Your task to perform on an android device: turn pop-ups on in chrome Image 0: 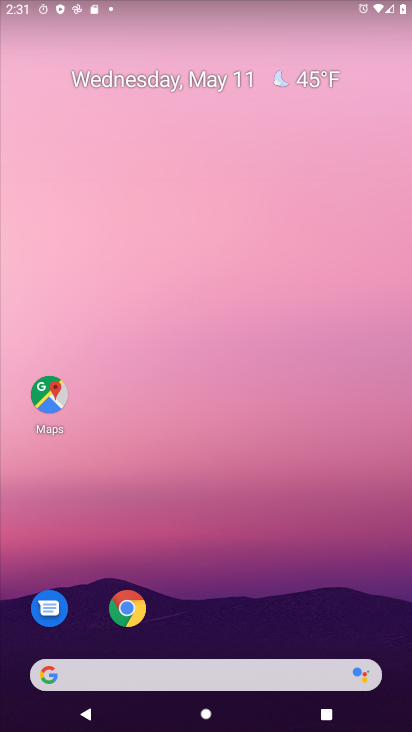
Step 0: click (129, 605)
Your task to perform on an android device: turn pop-ups on in chrome Image 1: 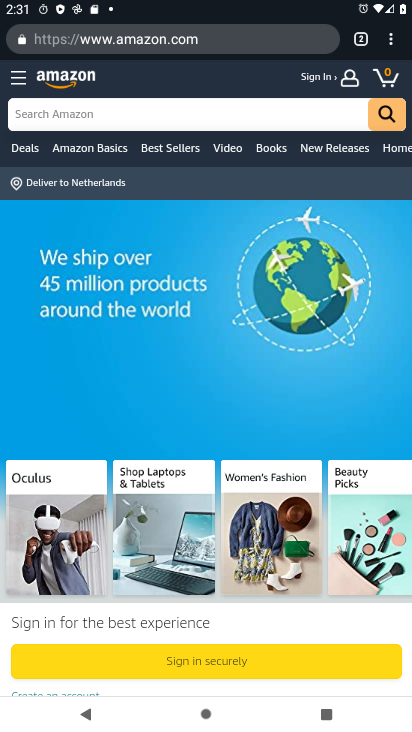
Step 1: click (388, 37)
Your task to perform on an android device: turn pop-ups on in chrome Image 2: 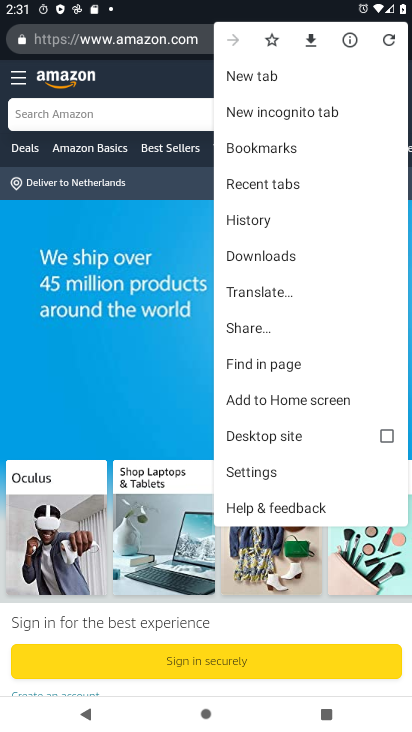
Step 2: click (279, 475)
Your task to perform on an android device: turn pop-ups on in chrome Image 3: 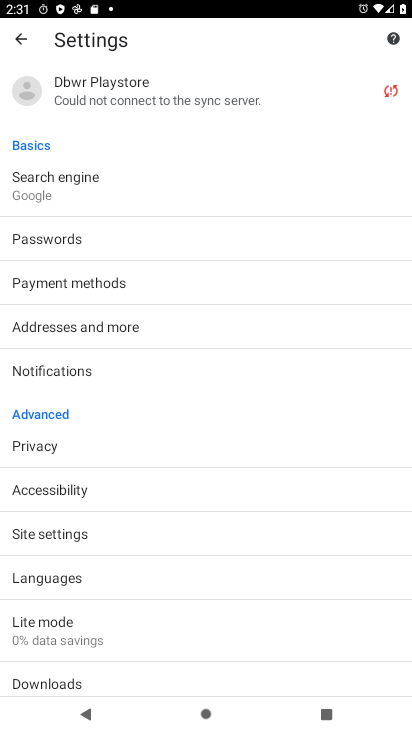
Step 3: click (61, 535)
Your task to perform on an android device: turn pop-ups on in chrome Image 4: 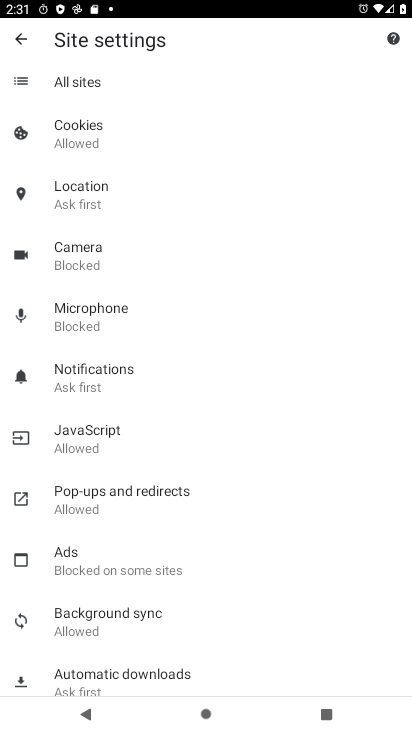
Step 4: drag from (180, 577) to (177, 303)
Your task to perform on an android device: turn pop-ups on in chrome Image 5: 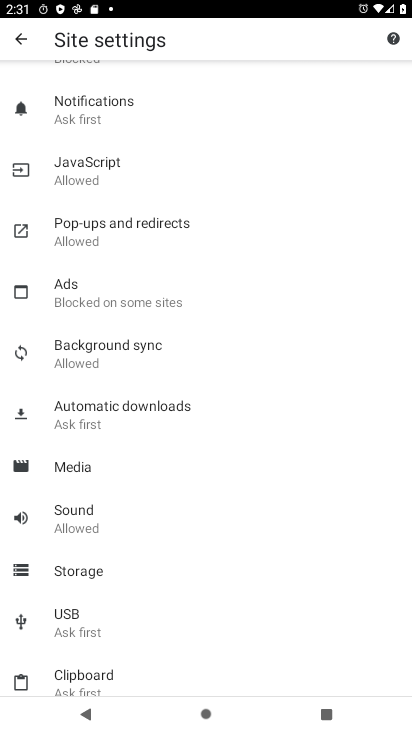
Step 5: click (124, 228)
Your task to perform on an android device: turn pop-ups on in chrome Image 6: 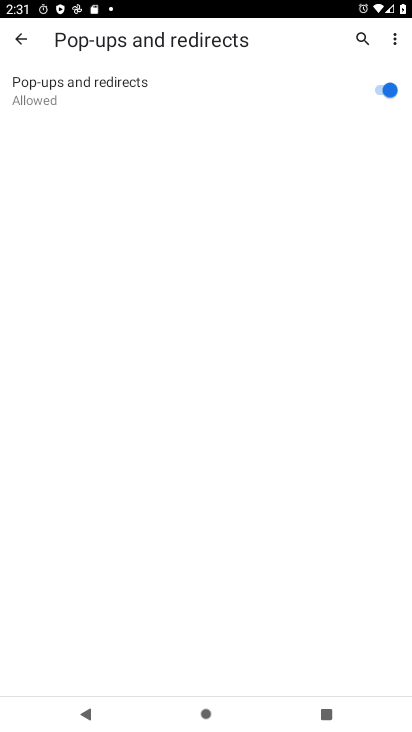
Step 6: task complete